Your task to perform on an android device: Open Yahoo.com Image 0: 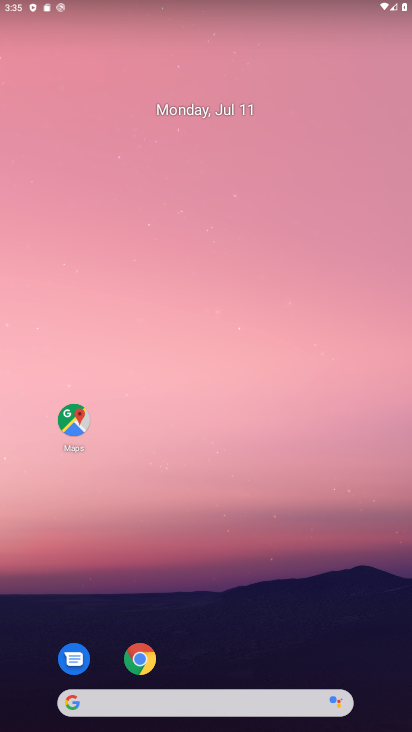
Step 0: drag from (235, 625) to (316, 167)
Your task to perform on an android device: Open Yahoo.com Image 1: 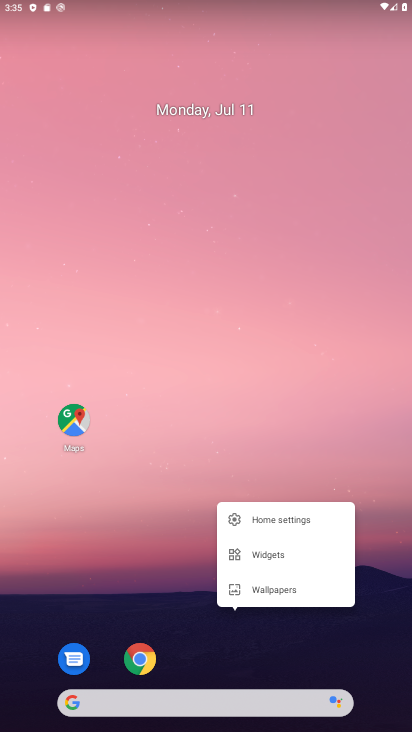
Step 1: drag from (166, 681) to (278, 134)
Your task to perform on an android device: Open Yahoo.com Image 2: 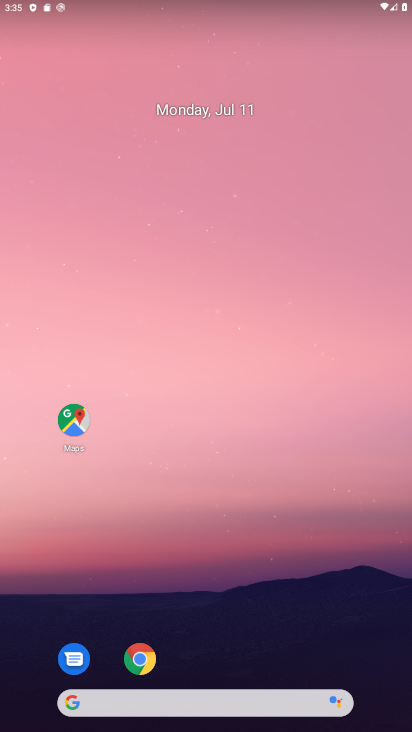
Step 2: drag from (221, 643) to (331, 163)
Your task to perform on an android device: Open Yahoo.com Image 3: 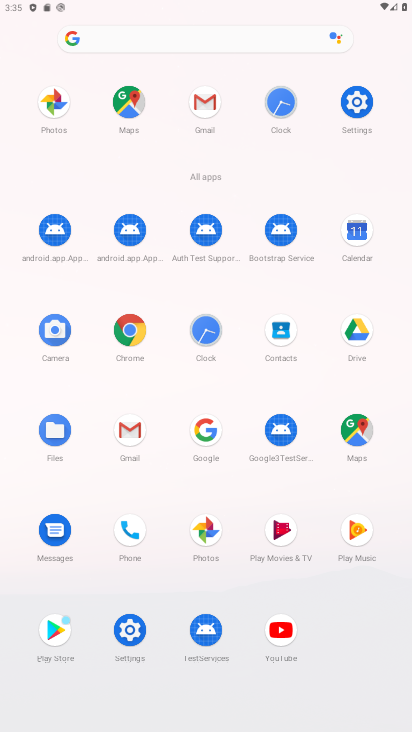
Step 3: click (130, 334)
Your task to perform on an android device: Open Yahoo.com Image 4: 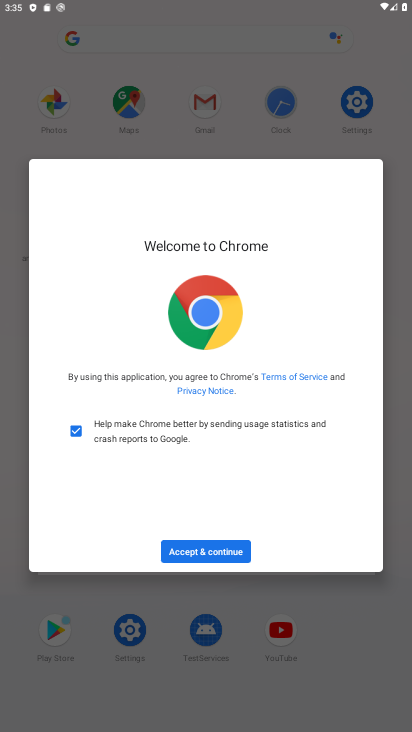
Step 4: click (188, 553)
Your task to perform on an android device: Open Yahoo.com Image 5: 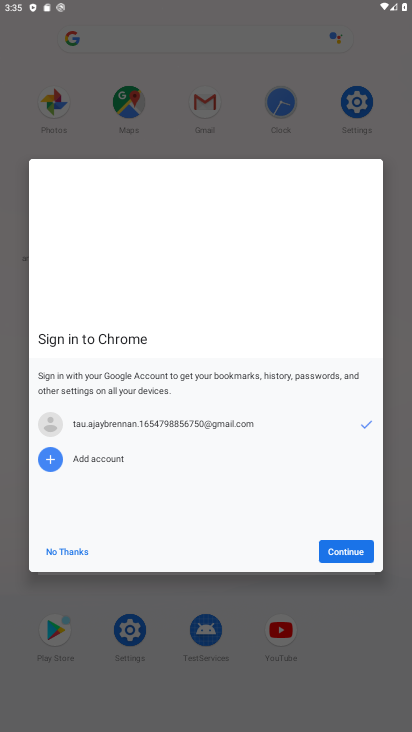
Step 5: click (348, 542)
Your task to perform on an android device: Open Yahoo.com Image 6: 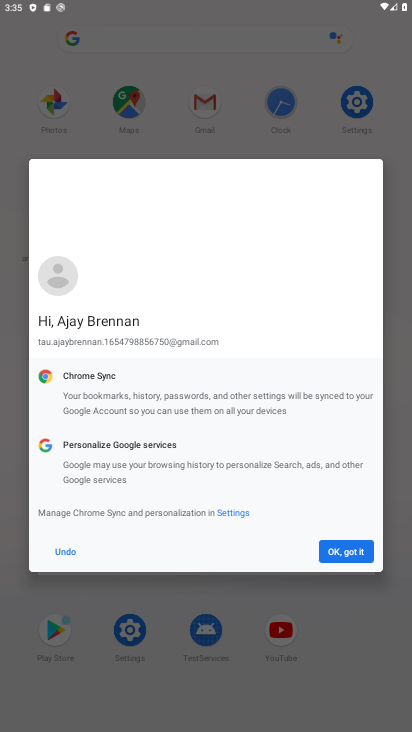
Step 6: click (346, 561)
Your task to perform on an android device: Open Yahoo.com Image 7: 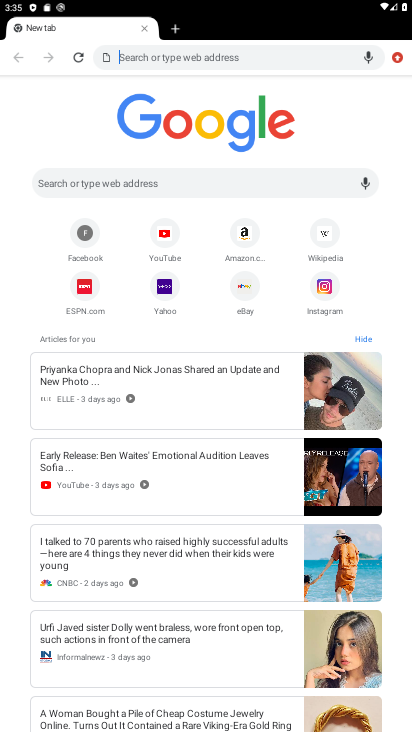
Step 7: click (165, 289)
Your task to perform on an android device: Open Yahoo.com Image 8: 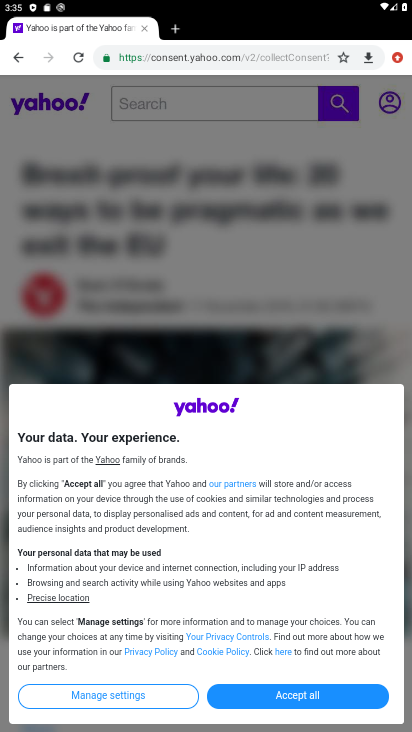
Step 8: click (333, 688)
Your task to perform on an android device: Open Yahoo.com Image 9: 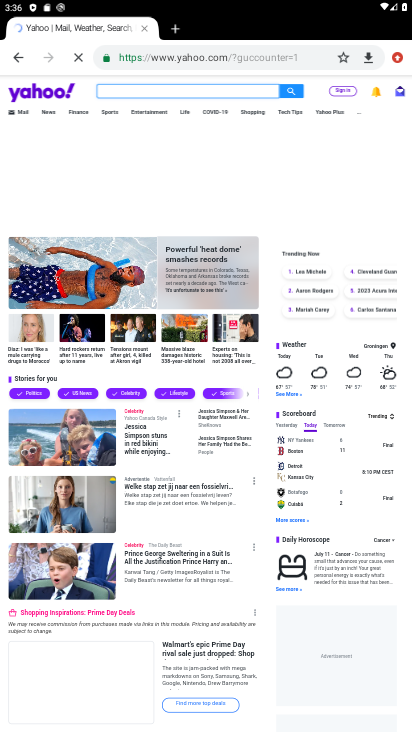
Step 9: task complete